Your task to perform on an android device: toggle airplane mode Image 0: 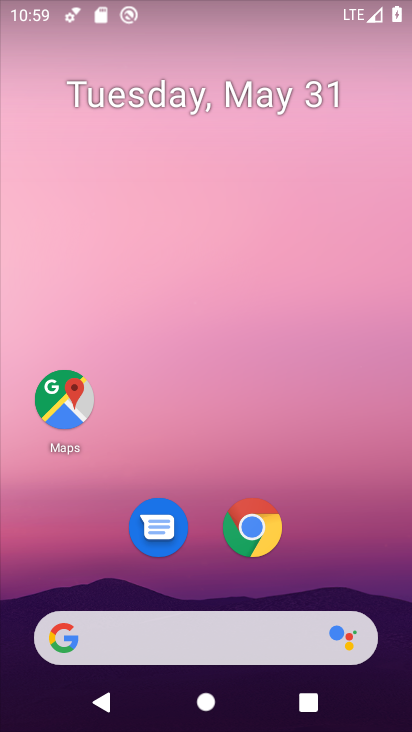
Step 0: drag from (335, 555) to (273, 8)
Your task to perform on an android device: toggle airplane mode Image 1: 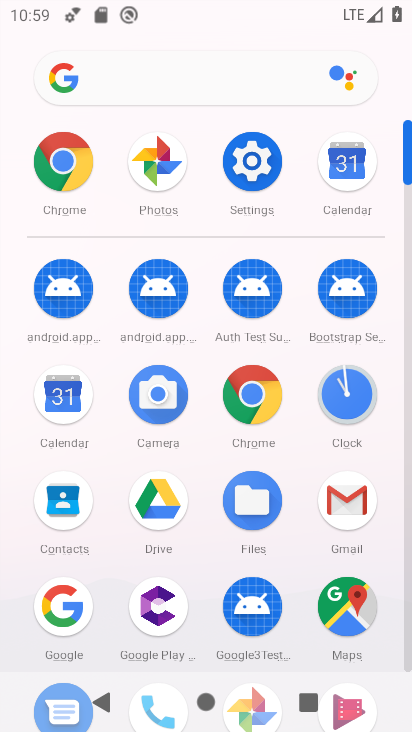
Step 1: click (247, 167)
Your task to perform on an android device: toggle airplane mode Image 2: 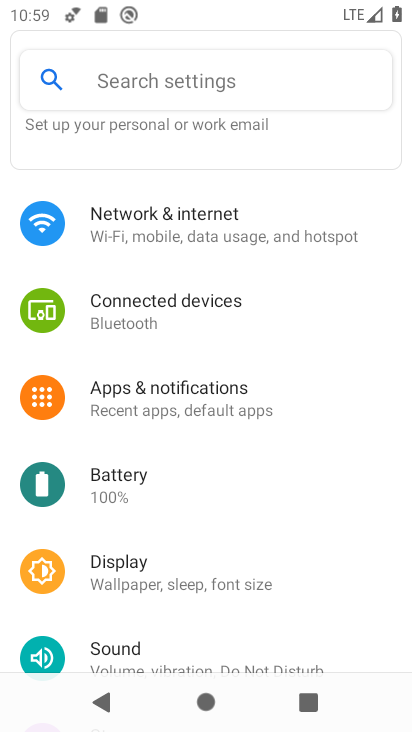
Step 2: click (183, 242)
Your task to perform on an android device: toggle airplane mode Image 3: 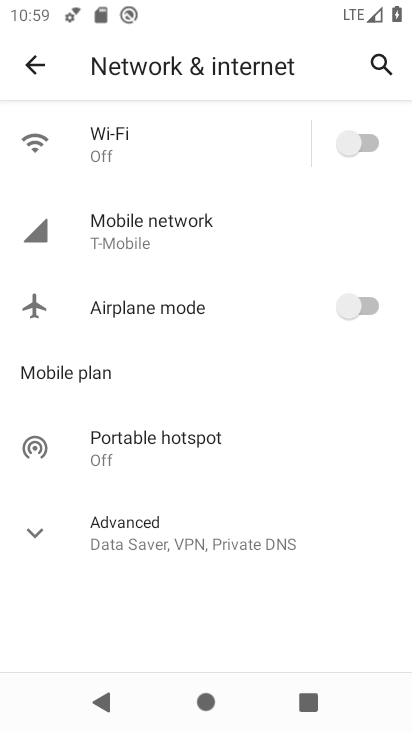
Step 3: click (368, 304)
Your task to perform on an android device: toggle airplane mode Image 4: 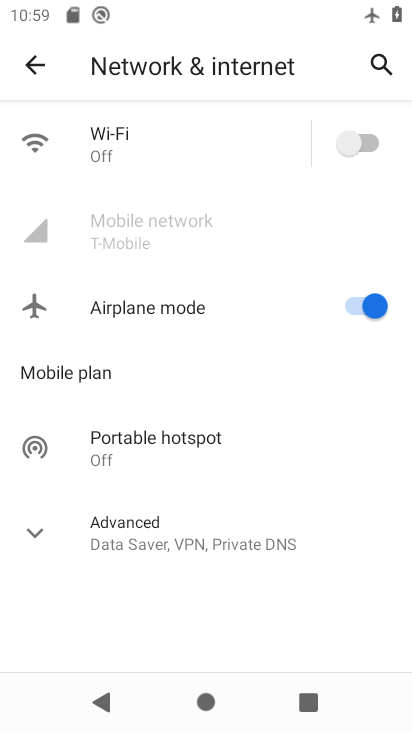
Step 4: task complete